Your task to perform on an android device: read, delete, or share a saved page in the chrome app Image 0: 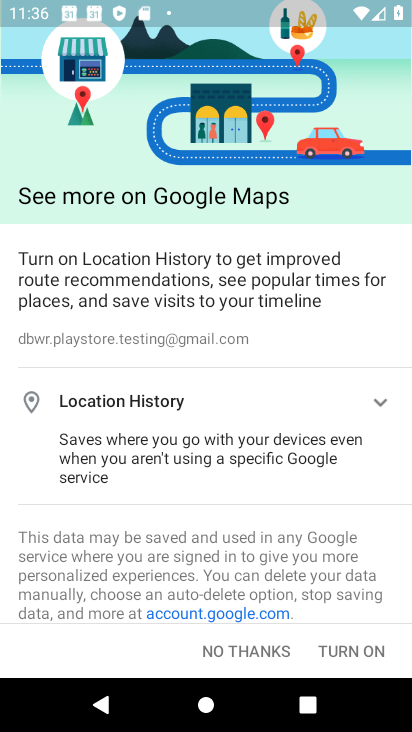
Step 0: click (244, 643)
Your task to perform on an android device: read, delete, or share a saved page in the chrome app Image 1: 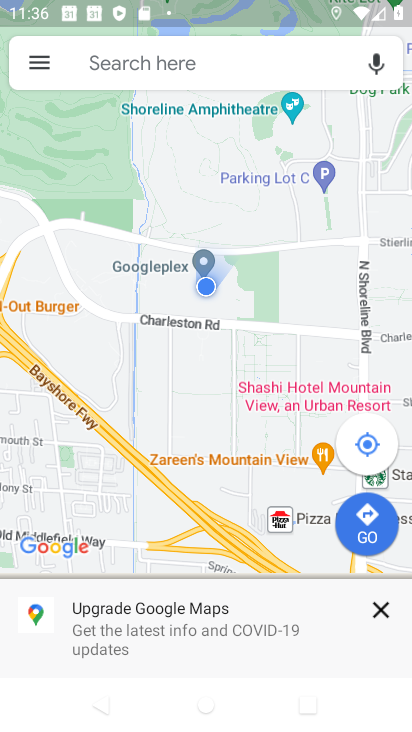
Step 1: press back button
Your task to perform on an android device: read, delete, or share a saved page in the chrome app Image 2: 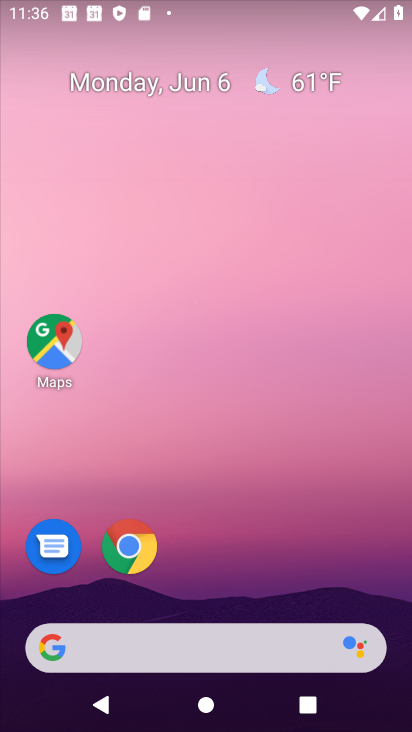
Step 2: click (141, 556)
Your task to perform on an android device: read, delete, or share a saved page in the chrome app Image 3: 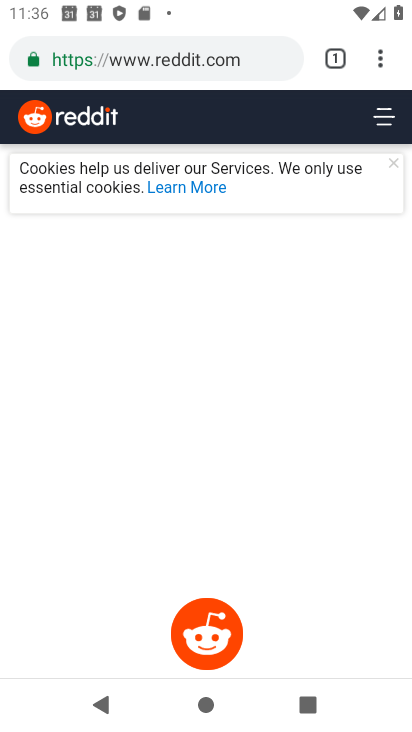
Step 3: drag from (379, 60) to (179, 379)
Your task to perform on an android device: read, delete, or share a saved page in the chrome app Image 4: 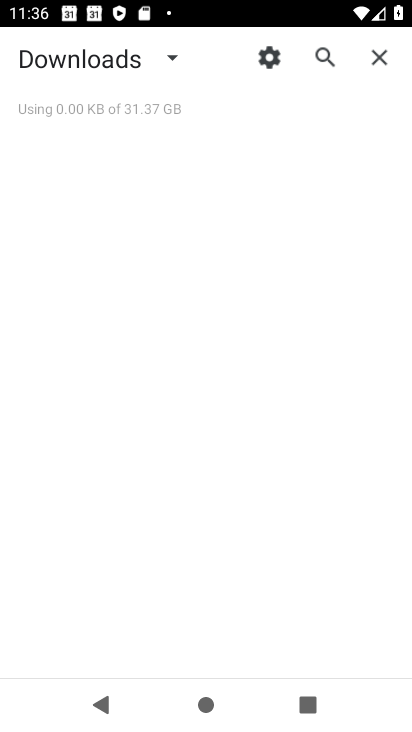
Step 4: click (140, 59)
Your task to perform on an android device: read, delete, or share a saved page in the chrome app Image 5: 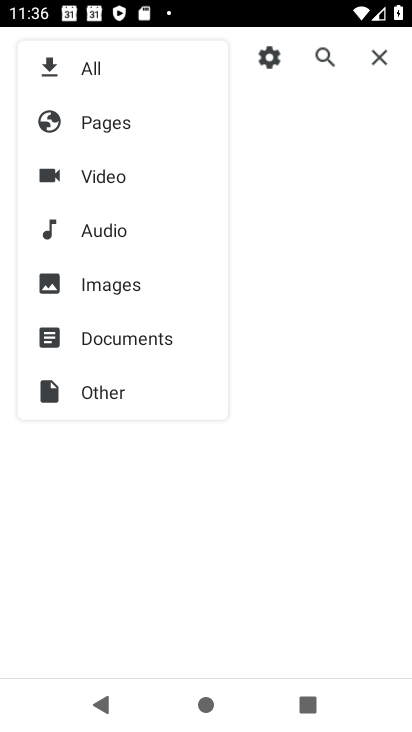
Step 5: click (120, 123)
Your task to perform on an android device: read, delete, or share a saved page in the chrome app Image 6: 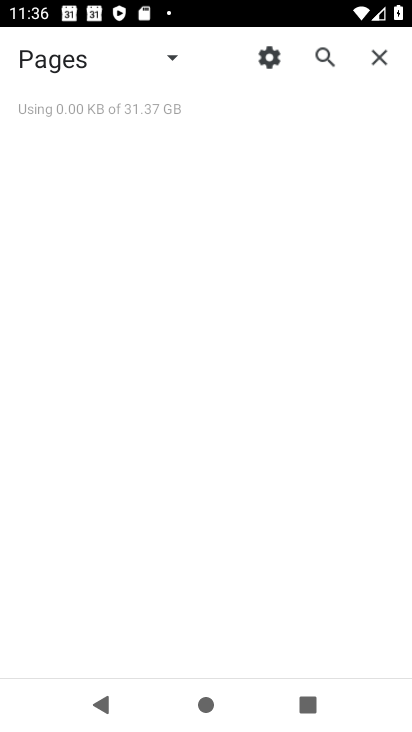
Step 6: task complete